Your task to perform on an android device: Open Google Maps Image 0: 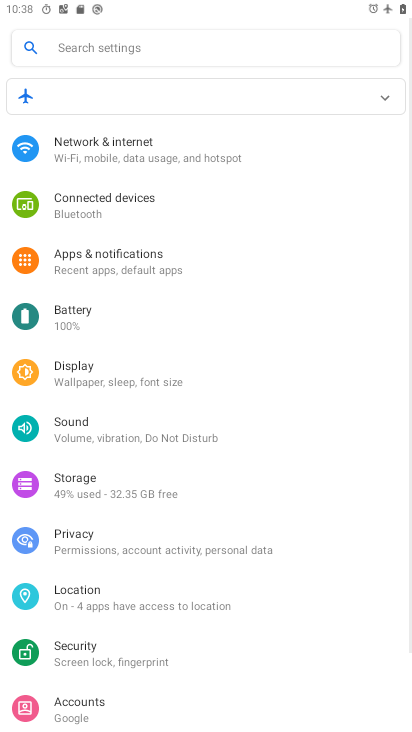
Step 0: click (392, 182)
Your task to perform on an android device: Open Google Maps Image 1: 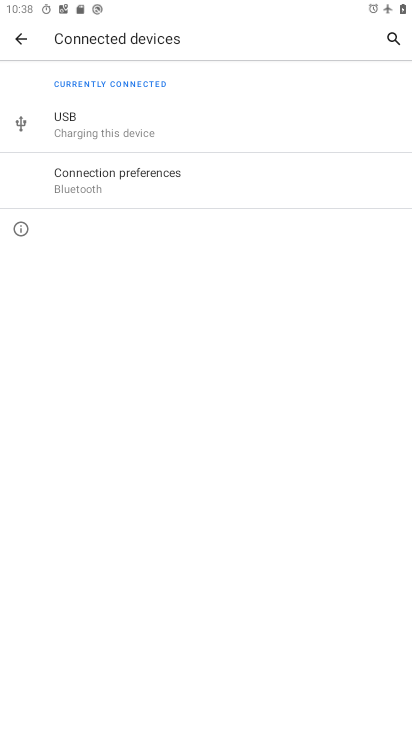
Step 1: press home button
Your task to perform on an android device: Open Google Maps Image 2: 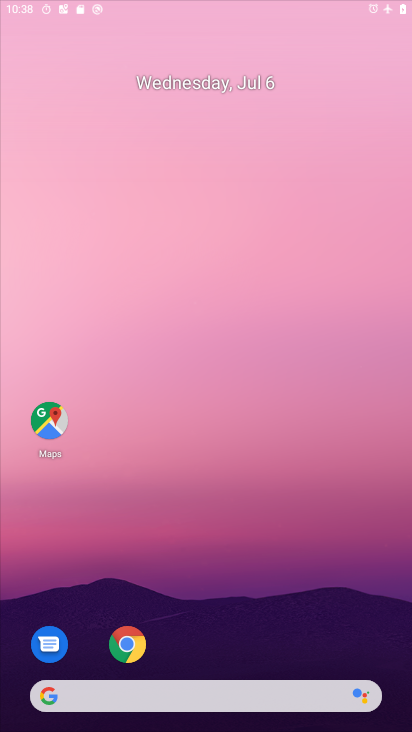
Step 2: drag from (244, 609) to (284, 45)
Your task to perform on an android device: Open Google Maps Image 3: 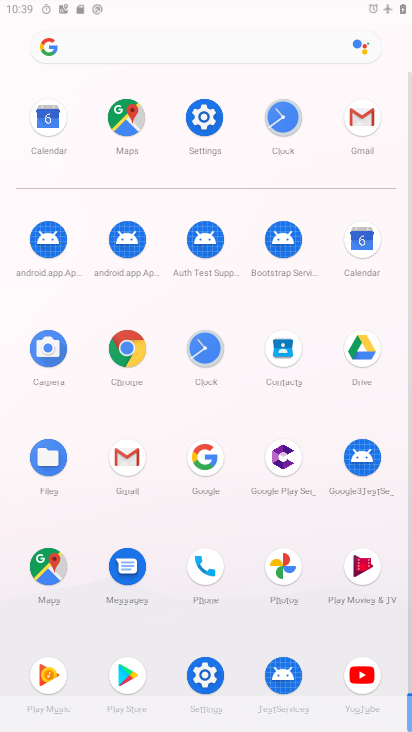
Step 3: drag from (168, 492) to (195, 313)
Your task to perform on an android device: Open Google Maps Image 4: 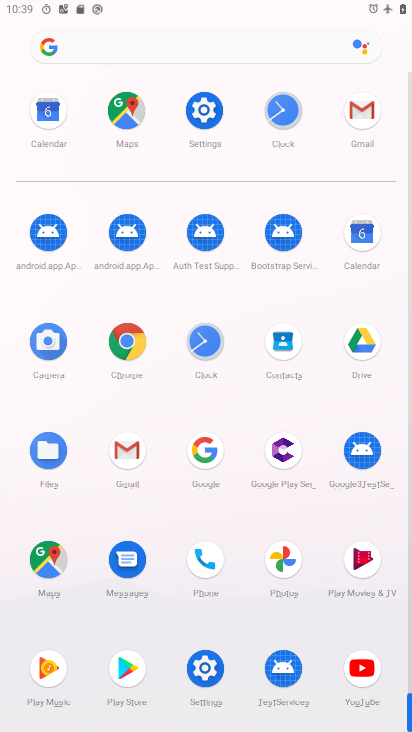
Step 4: click (49, 563)
Your task to perform on an android device: Open Google Maps Image 5: 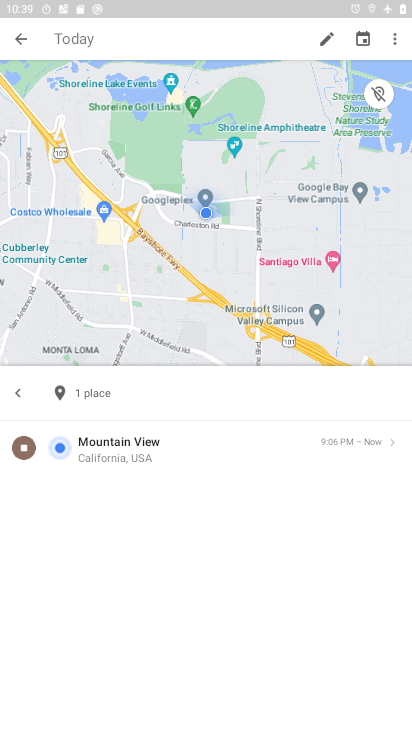
Step 5: task complete